Your task to perform on an android device: turn on priority inbox in the gmail app Image 0: 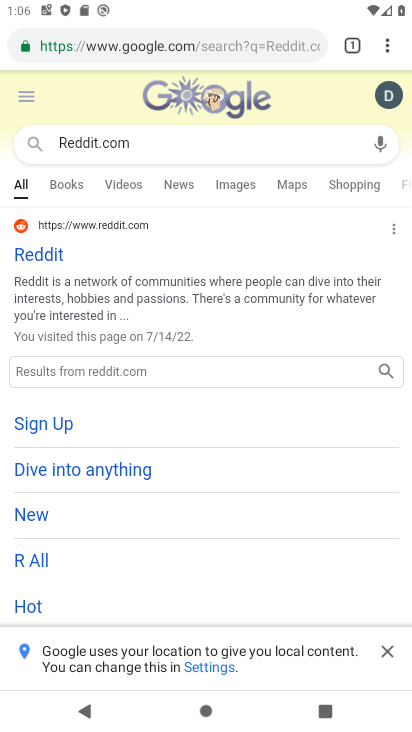
Step 0: press home button
Your task to perform on an android device: turn on priority inbox in the gmail app Image 1: 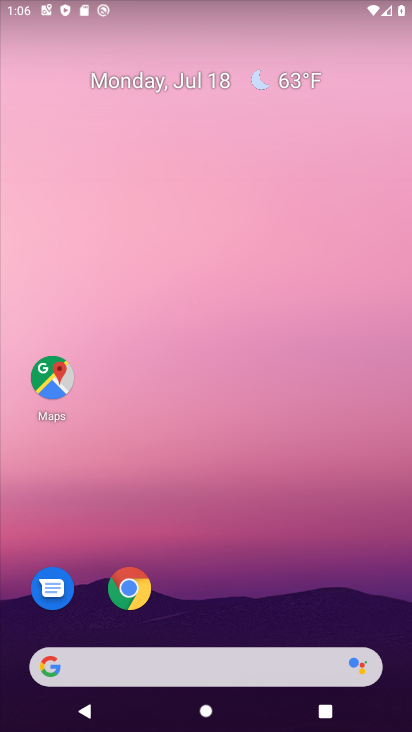
Step 1: drag from (194, 540) to (115, 0)
Your task to perform on an android device: turn on priority inbox in the gmail app Image 2: 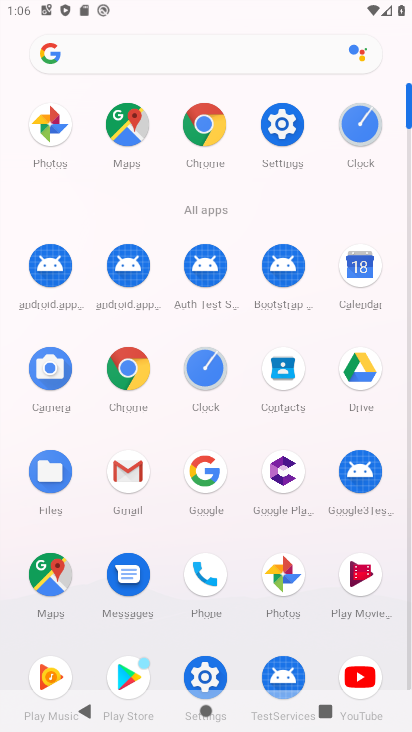
Step 2: click (126, 471)
Your task to perform on an android device: turn on priority inbox in the gmail app Image 3: 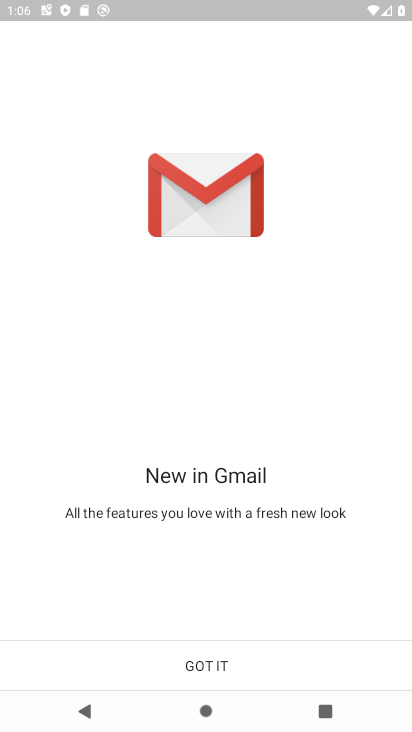
Step 3: click (192, 653)
Your task to perform on an android device: turn on priority inbox in the gmail app Image 4: 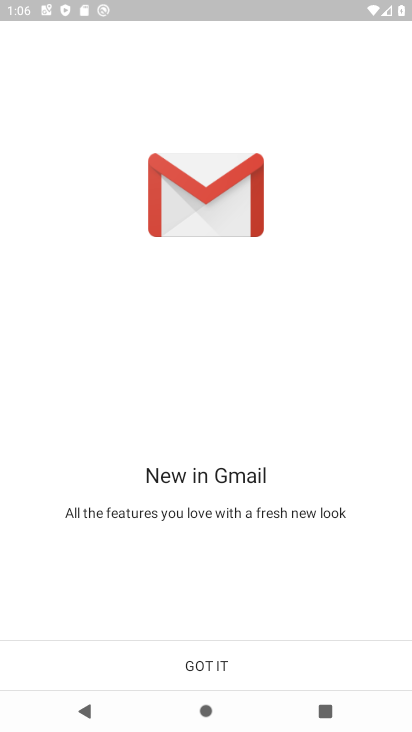
Step 4: click (192, 653)
Your task to perform on an android device: turn on priority inbox in the gmail app Image 5: 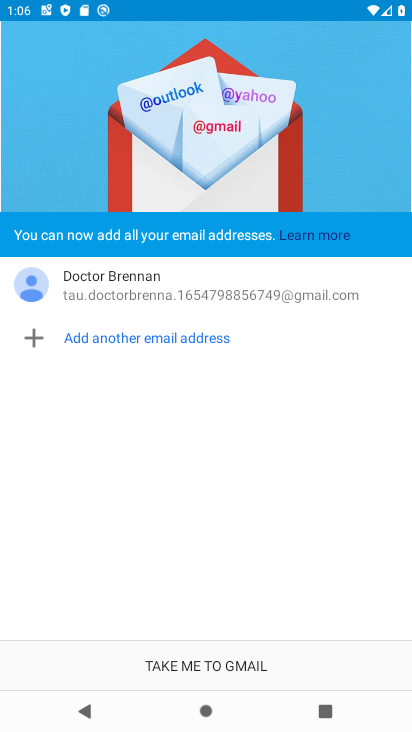
Step 5: click (192, 653)
Your task to perform on an android device: turn on priority inbox in the gmail app Image 6: 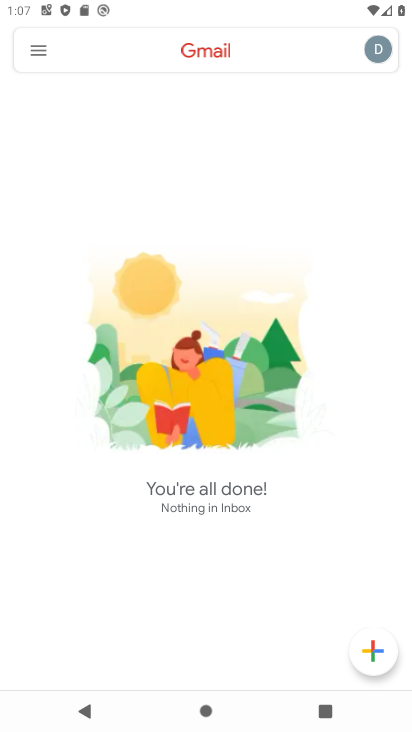
Step 6: click (37, 47)
Your task to perform on an android device: turn on priority inbox in the gmail app Image 7: 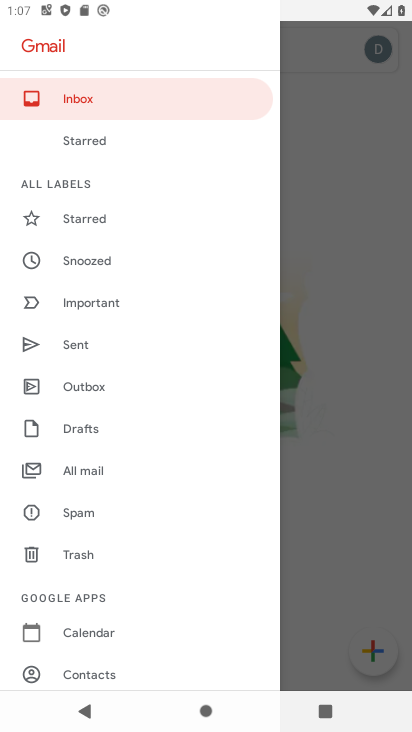
Step 7: drag from (171, 650) to (173, 211)
Your task to perform on an android device: turn on priority inbox in the gmail app Image 8: 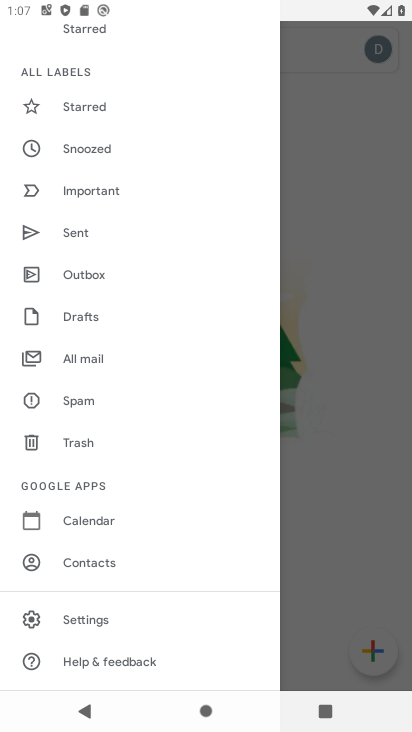
Step 8: click (95, 619)
Your task to perform on an android device: turn on priority inbox in the gmail app Image 9: 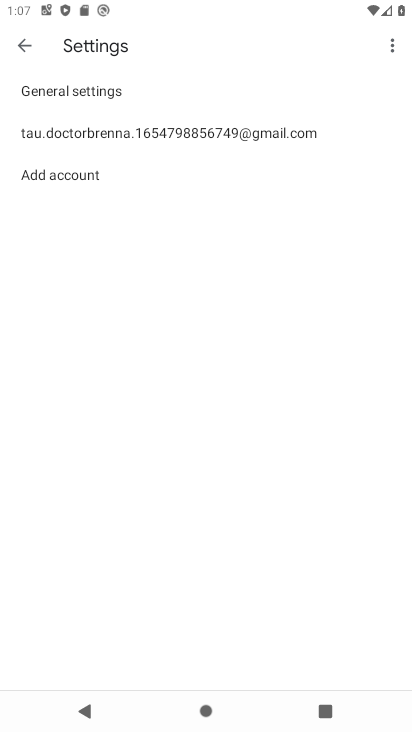
Step 9: click (133, 135)
Your task to perform on an android device: turn on priority inbox in the gmail app Image 10: 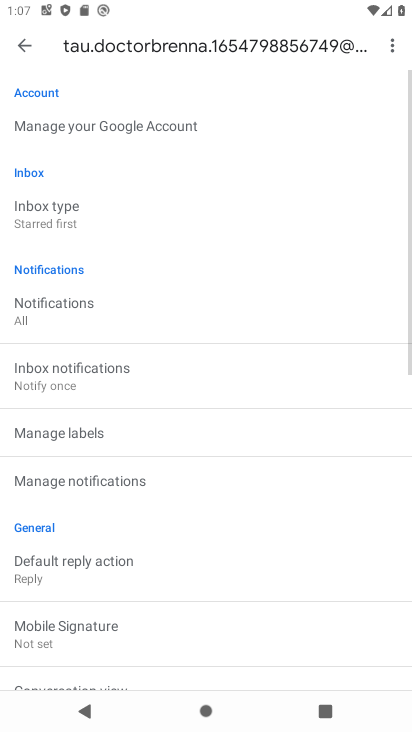
Step 10: click (55, 204)
Your task to perform on an android device: turn on priority inbox in the gmail app Image 11: 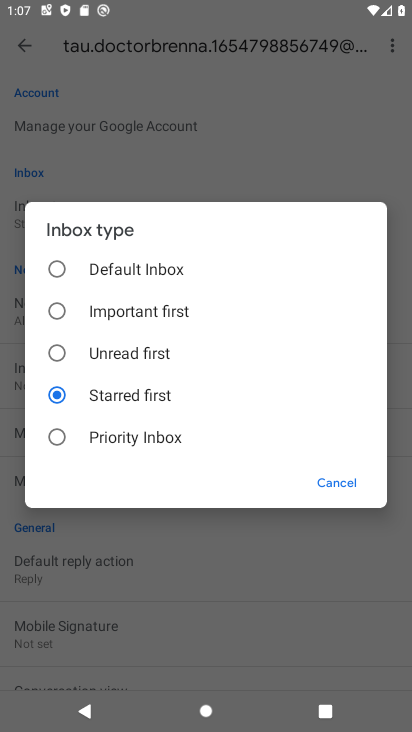
Step 11: click (51, 442)
Your task to perform on an android device: turn on priority inbox in the gmail app Image 12: 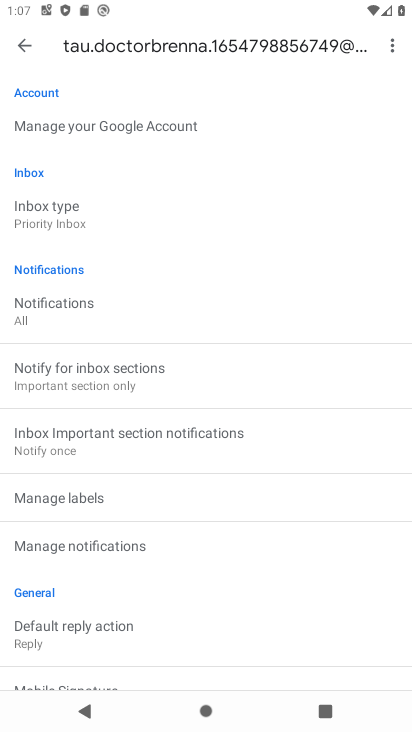
Step 12: task complete